Your task to perform on an android device: allow notifications from all sites in the chrome app Image 0: 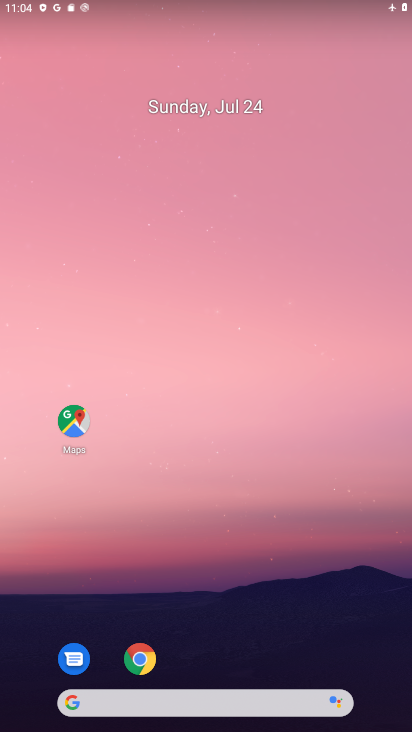
Step 0: click (140, 659)
Your task to perform on an android device: allow notifications from all sites in the chrome app Image 1: 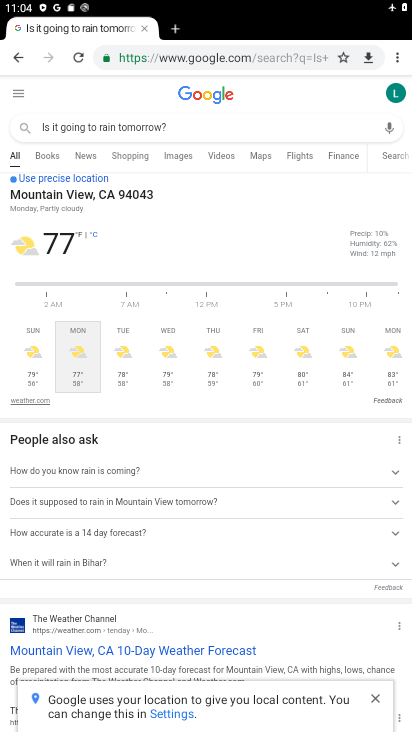
Step 1: click (397, 58)
Your task to perform on an android device: allow notifications from all sites in the chrome app Image 2: 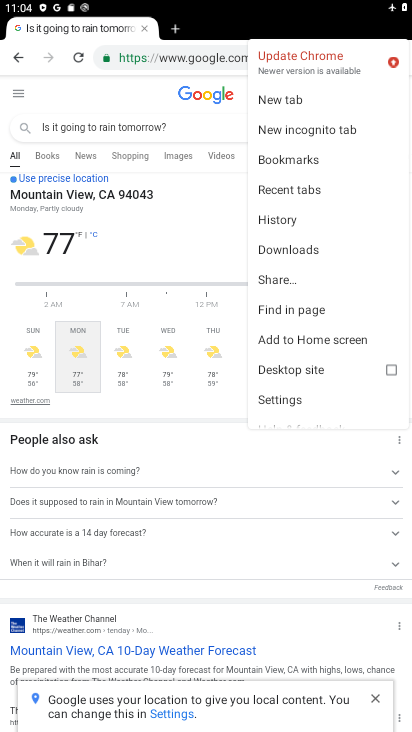
Step 2: click (319, 407)
Your task to perform on an android device: allow notifications from all sites in the chrome app Image 3: 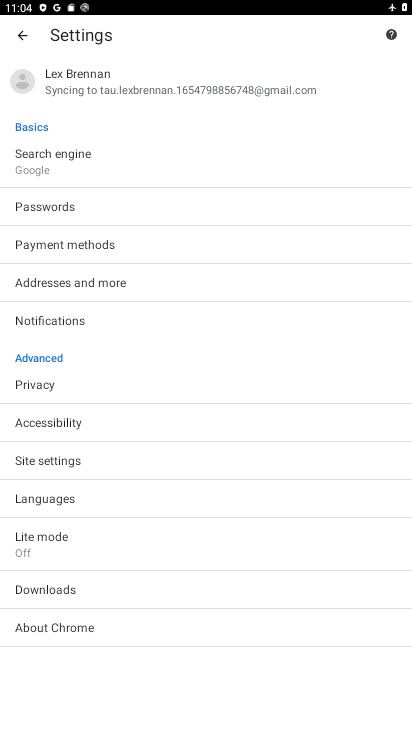
Step 3: click (136, 458)
Your task to perform on an android device: allow notifications from all sites in the chrome app Image 4: 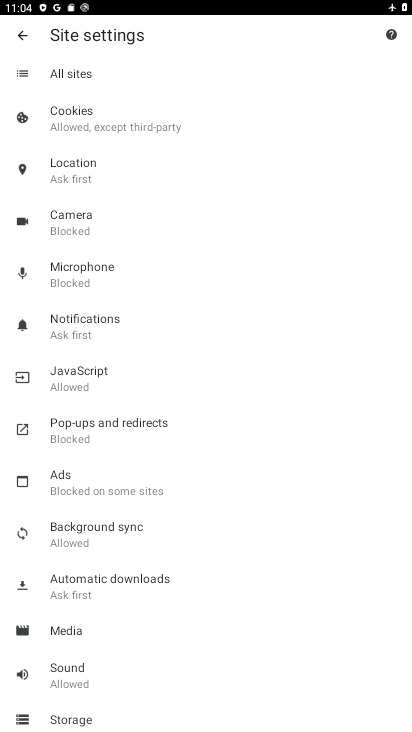
Step 4: click (139, 319)
Your task to perform on an android device: allow notifications from all sites in the chrome app Image 5: 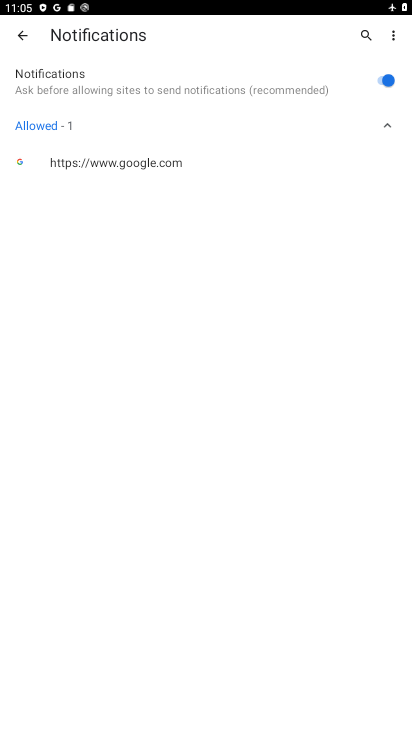
Step 5: task complete